Your task to perform on an android device: Do I have any events tomorrow? Image 0: 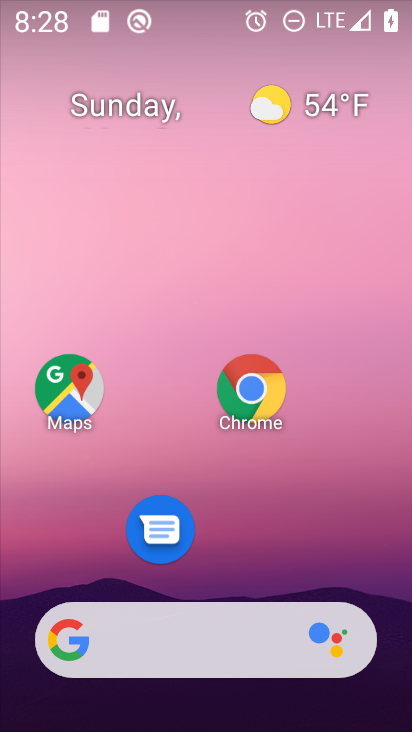
Step 0: drag from (246, 587) to (258, 9)
Your task to perform on an android device: Do I have any events tomorrow? Image 1: 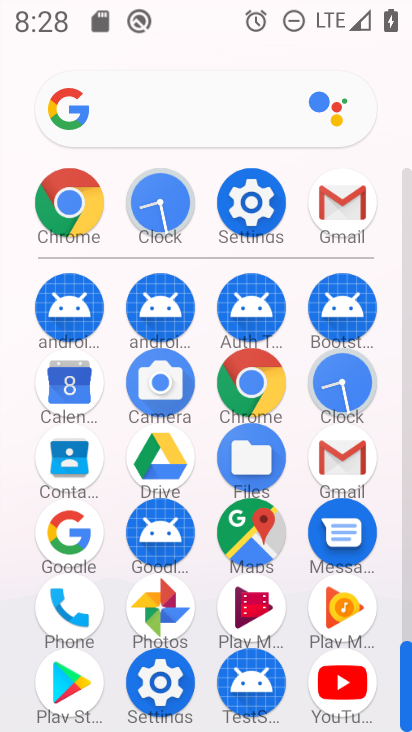
Step 1: click (71, 398)
Your task to perform on an android device: Do I have any events tomorrow? Image 2: 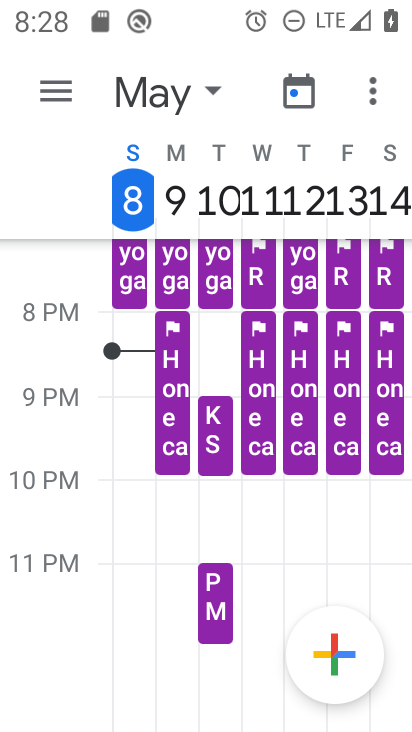
Step 2: click (45, 86)
Your task to perform on an android device: Do I have any events tomorrow? Image 3: 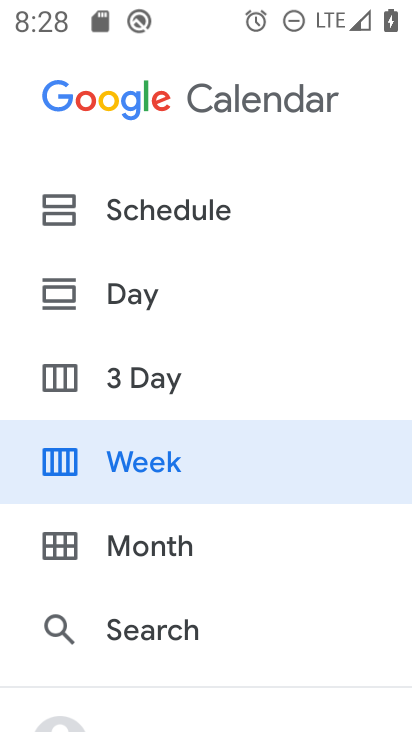
Step 3: drag from (162, 582) to (256, 151)
Your task to perform on an android device: Do I have any events tomorrow? Image 4: 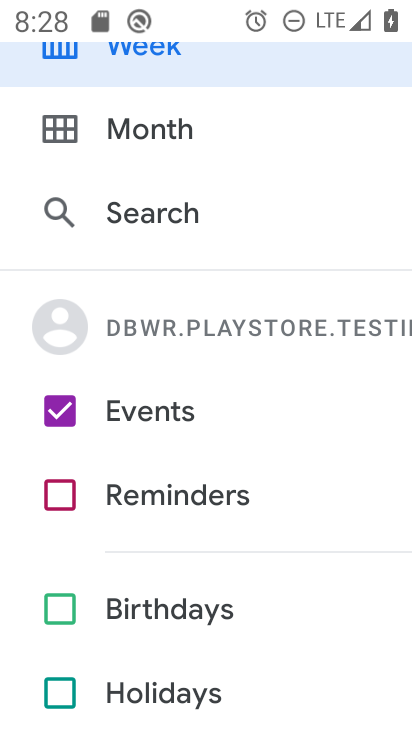
Step 4: drag from (236, 208) to (209, 621)
Your task to perform on an android device: Do I have any events tomorrow? Image 5: 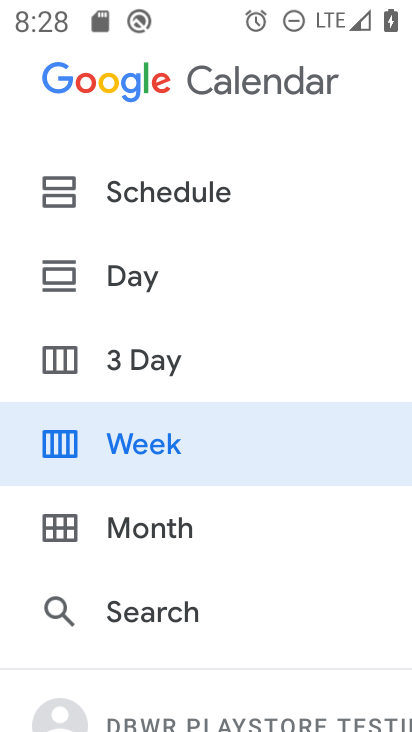
Step 5: click (147, 360)
Your task to perform on an android device: Do I have any events tomorrow? Image 6: 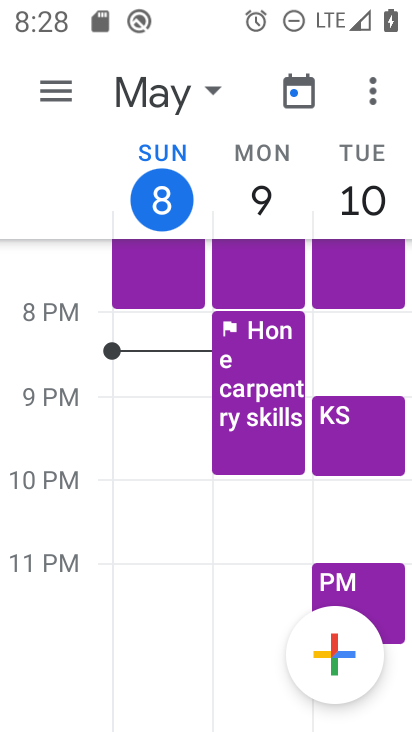
Step 6: task complete